Your task to perform on an android device: Open Reddit.com Image 0: 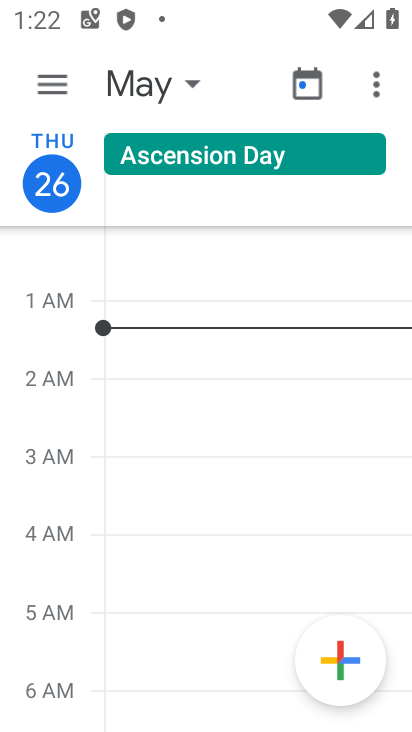
Step 0: press home button
Your task to perform on an android device: Open Reddit.com Image 1: 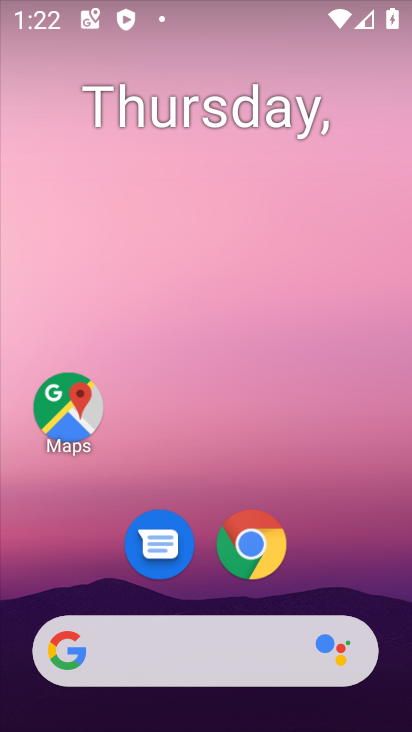
Step 1: click (252, 557)
Your task to perform on an android device: Open Reddit.com Image 2: 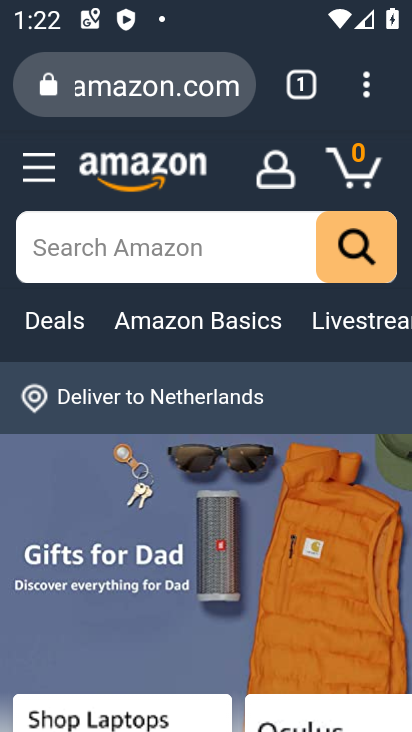
Step 2: click (353, 95)
Your task to perform on an android device: Open Reddit.com Image 3: 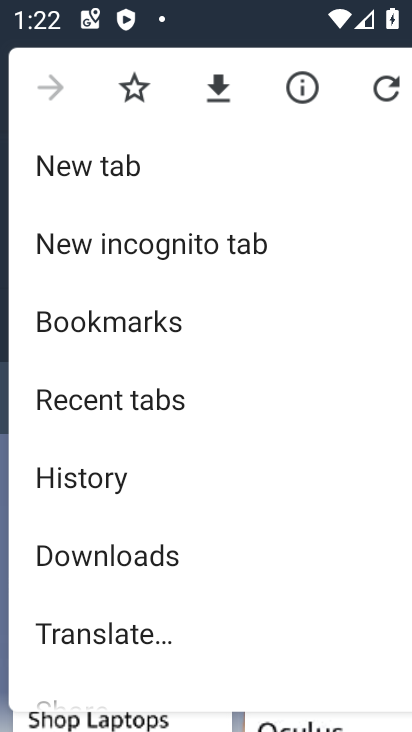
Step 3: click (95, 163)
Your task to perform on an android device: Open Reddit.com Image 4: 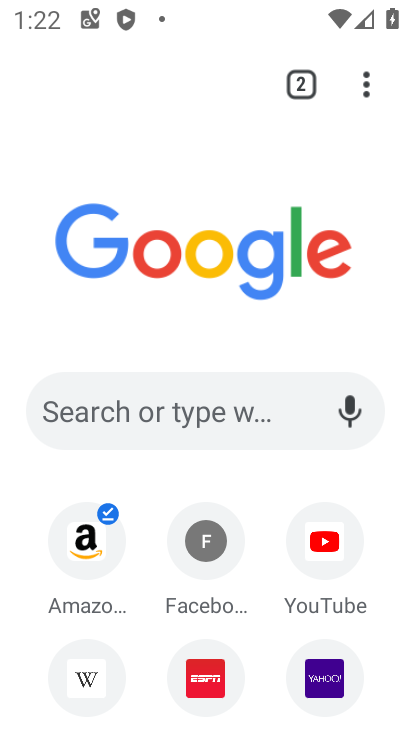
Step 4: click (241, 416)
Your task to perform on an android device: Open Reddit.com Image 5: 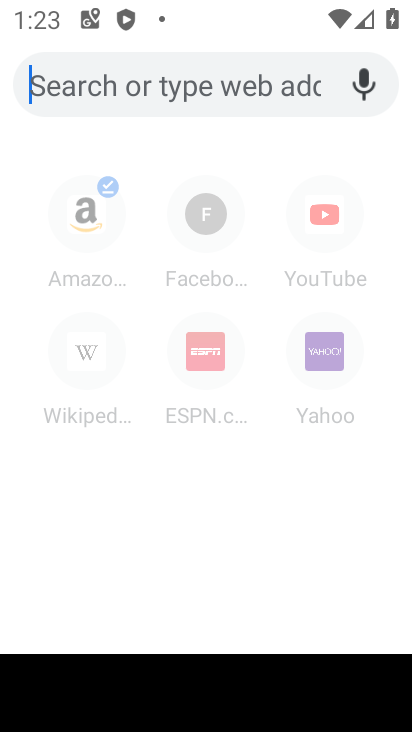
Step 5: type "Reddit.com"
Your task to perform on an android device: Open Reddit.com Image 6: 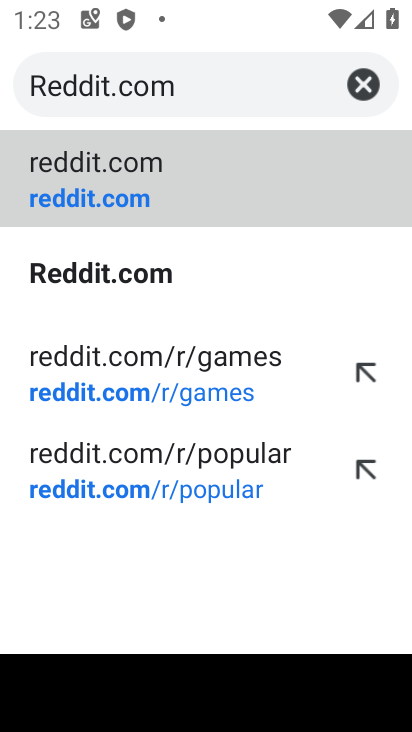
Step 6: click (99, 200)
Your task to perform on an android device: Open Reddit.com Image 7: 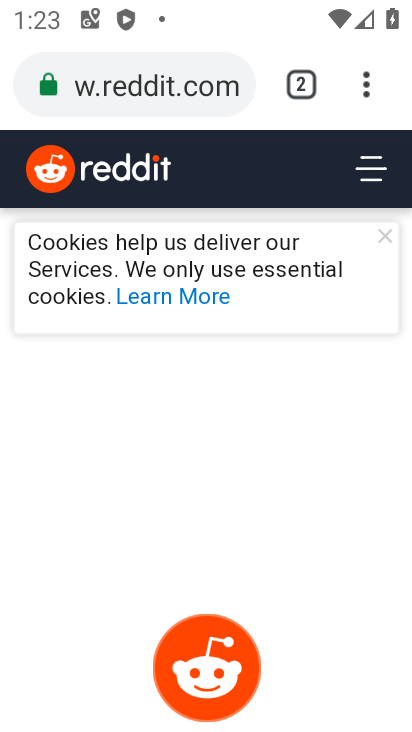
Step 7: task complete